Your task to perform on an android device: turn notification dots off Image 0: 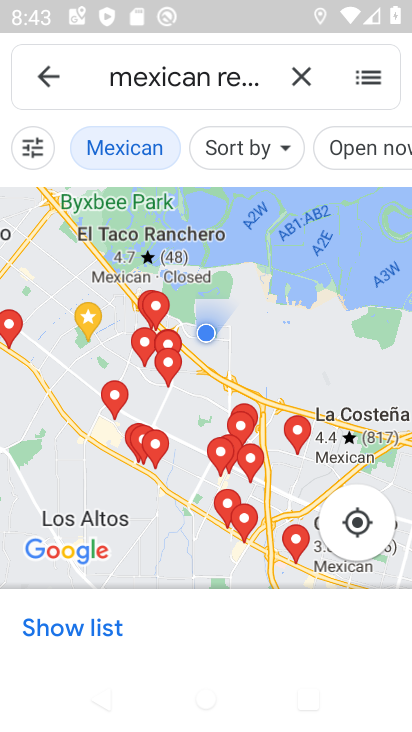
Step 0: press home button
Your task to perform on an android device: turn notification dots off Image 1: 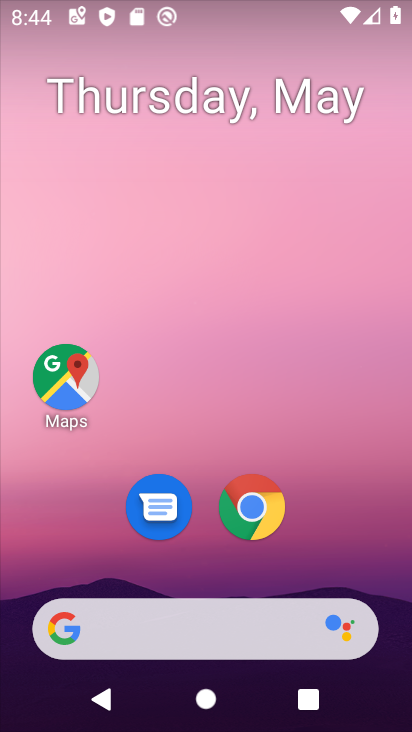
Step 1: drag from (241, 672) to (328, 150)
Your task to perform on an android device: turn notification dots off Image 2: 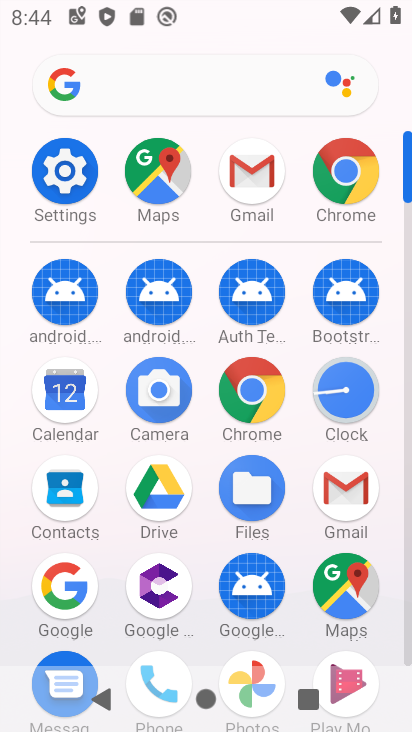
Step 2: click (62, 182)
Your task to perform on an android device: turn notification dots off Image 3: 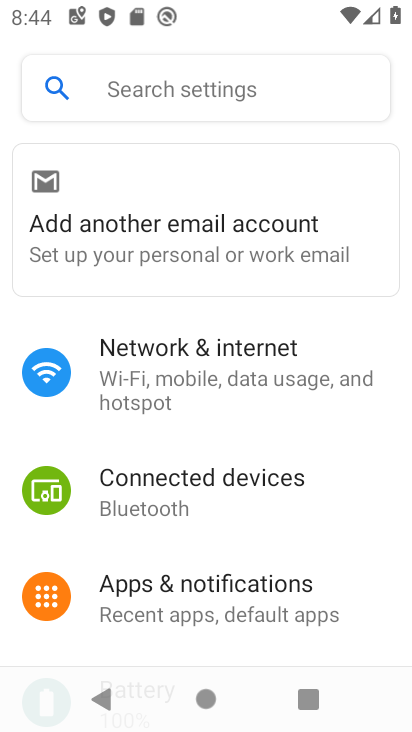
Step 3: click (198, 88)
Your task to perform on an android device: turn notification dots off Image 4: 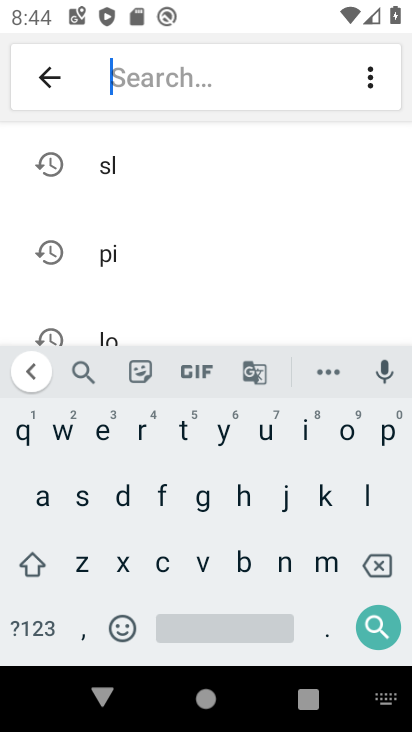
Step 4: click (121, 518)
Your task to perform on an android device: turn notification dots off Image 5: 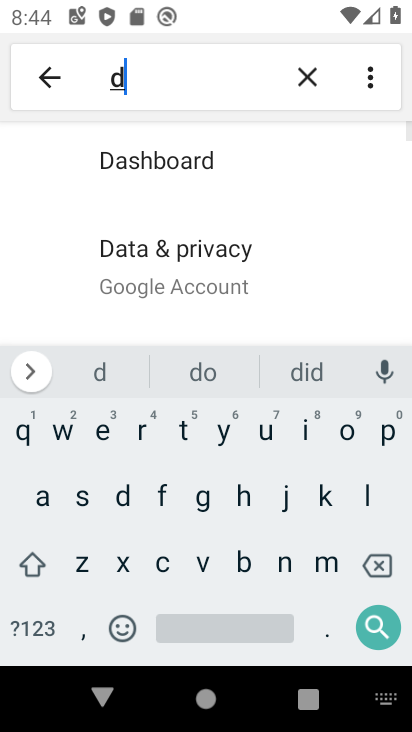
Step 5: click (336, 440)
Your task to perform on an android device: turn notification dots off Image 6: 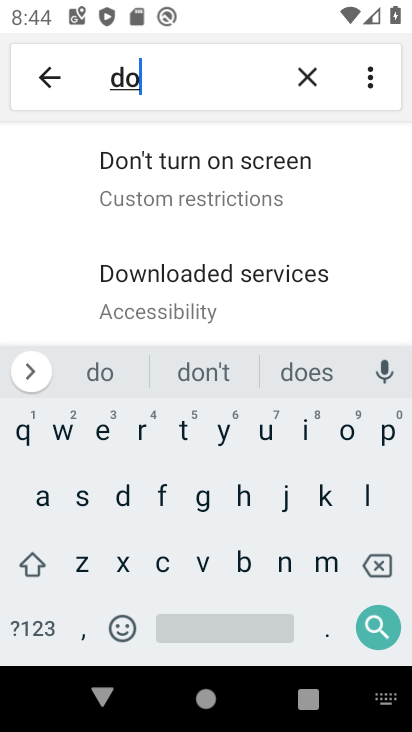
Step 6: click (178, 437)
Your task to perform on an android device: turn notification dots off Image 7: 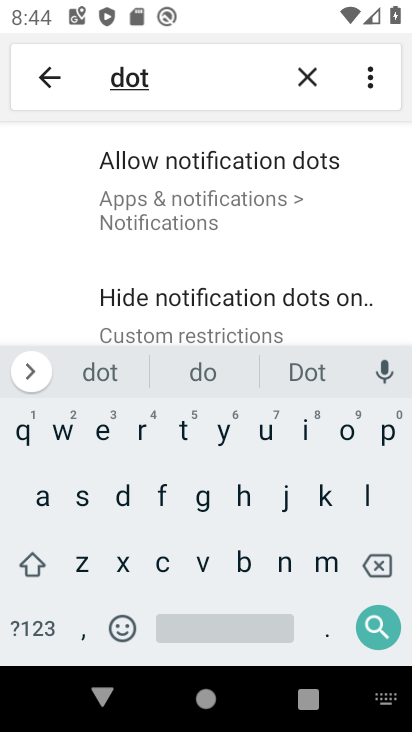
Step 7: click (194, 188)
Your task to perform on an android device: turn notification dots off Image 8: 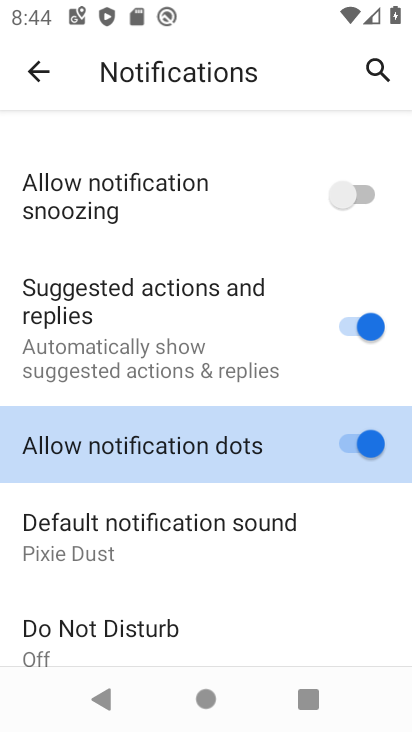
Step 8: click (165, 444)
Your task to perform on an android device: turn notification dots off Image 9: 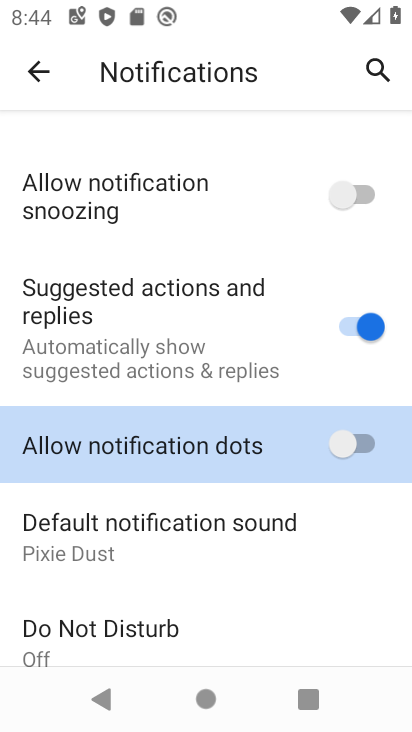
Step 9: task complete